Your task to perform on an android device: find which apps use the phone's location Image 0: 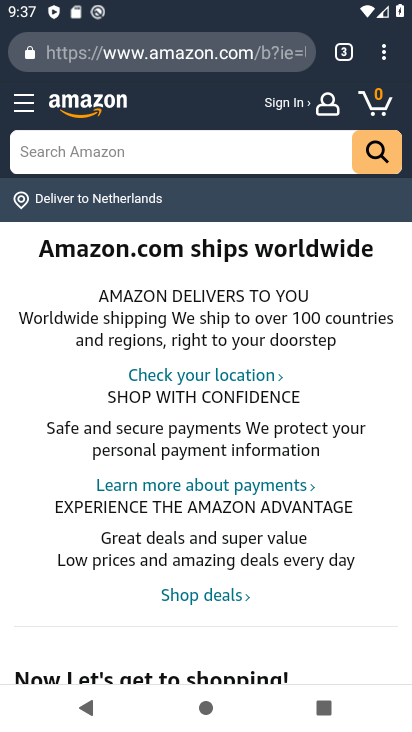
Step 0: press home button
Your task to perform on an android device: find which apps use the phone's location Image 1: 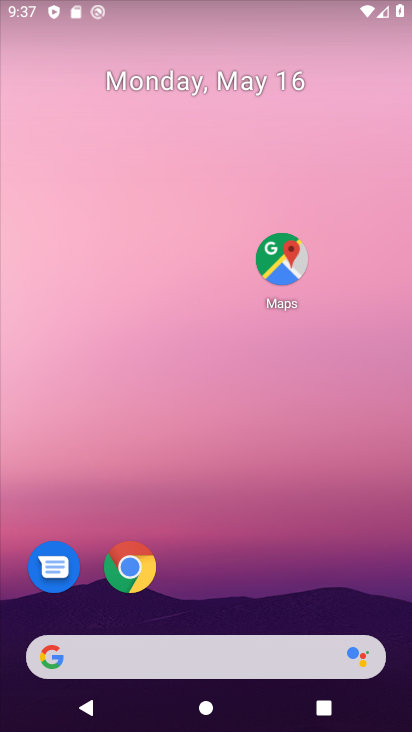
Step 1: drag from (256, 553) to (227, 87)
Your task to perform on an android device: find which apps use the phone's location Image 2: 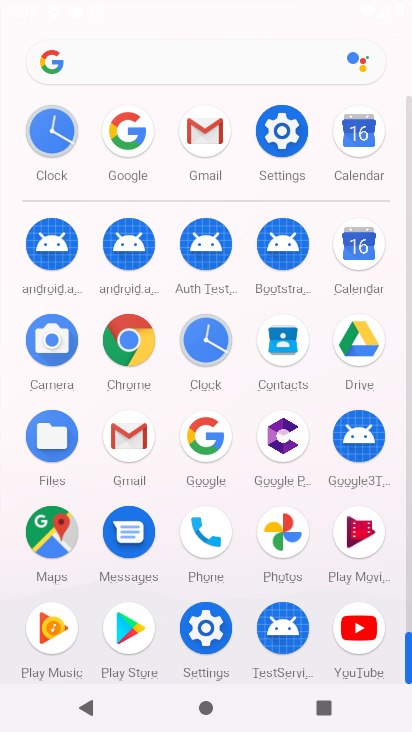
Step 2: click (281, 121)
Your task to perform on an android device: find which apps use the phone's location Image 3: 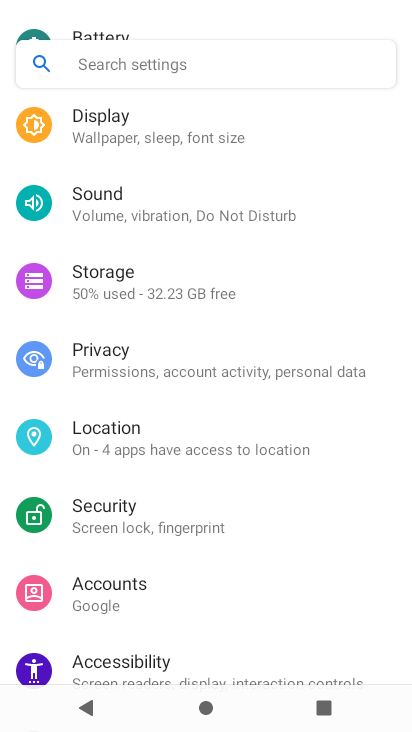
Step 3: click (162, 428)
Your task to perform on an android device: find which apps use the phone's location Image 4: 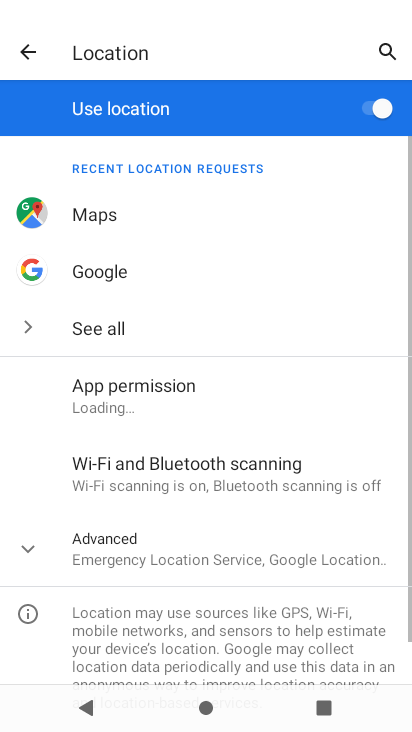
Step 4: click (148, 382)
Your task to perform on an android device: find which apps use the phone's location Image 5: 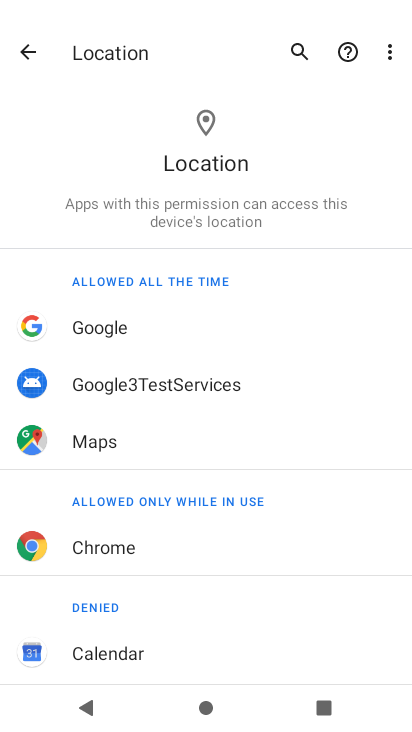
Step 5: task complete